Your task to perform on an android device: Search for the new nintendo switch on Walmart. Image 0: 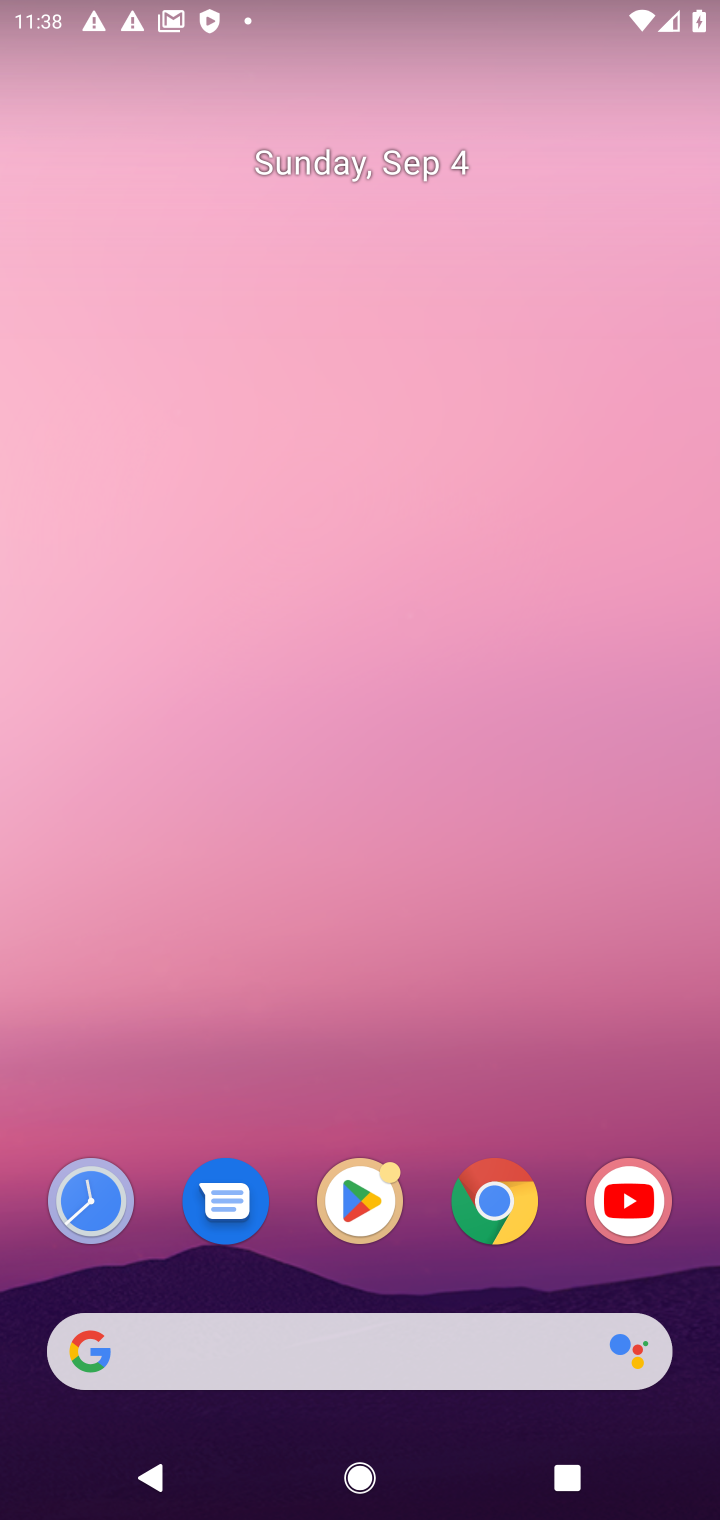
Step 0: click (484, 1224)
Your task to perform on an android device: Search for the new nintendo switch on Walmart. Image 1: 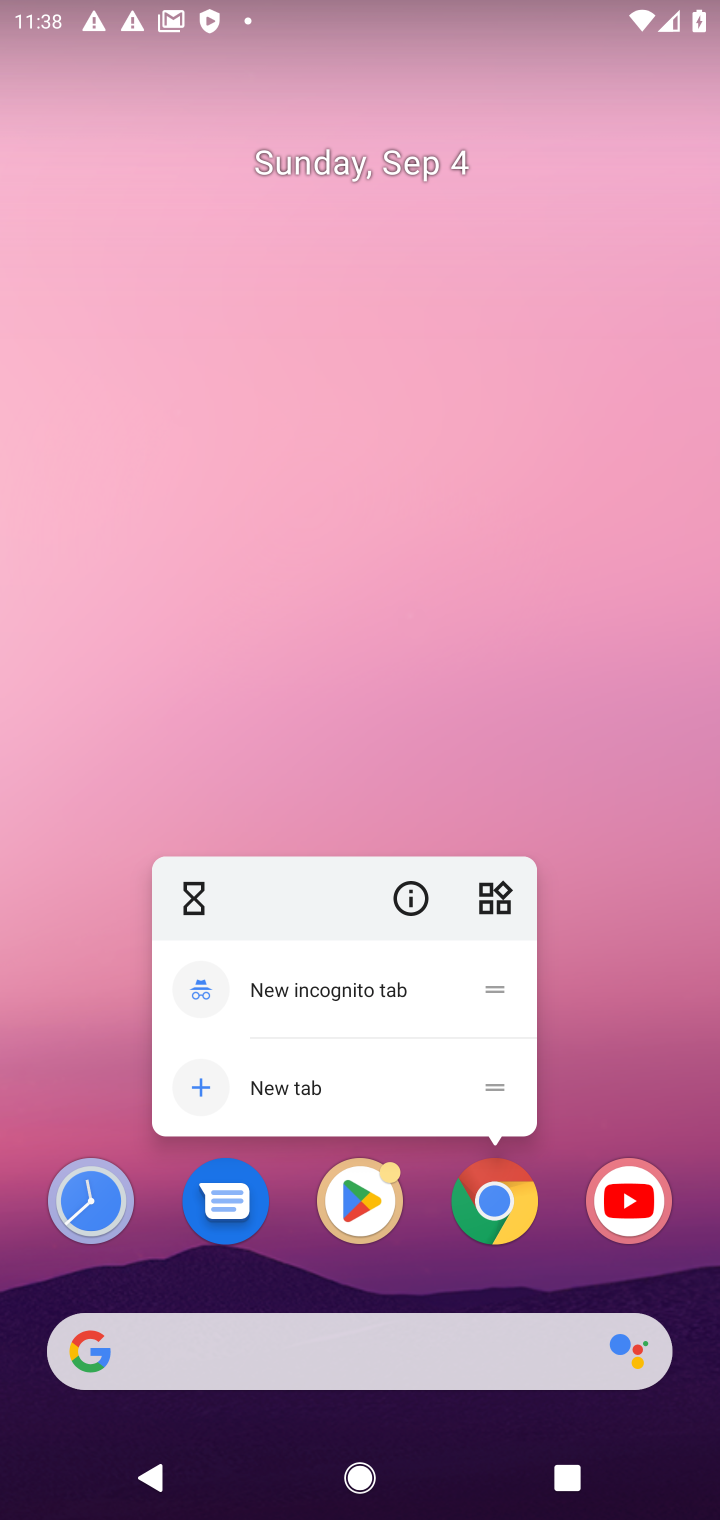
Step 1: click (486, 1216)
Your task to perform on an android device: Search for the new nintendo switch on Walmart. Image 2: 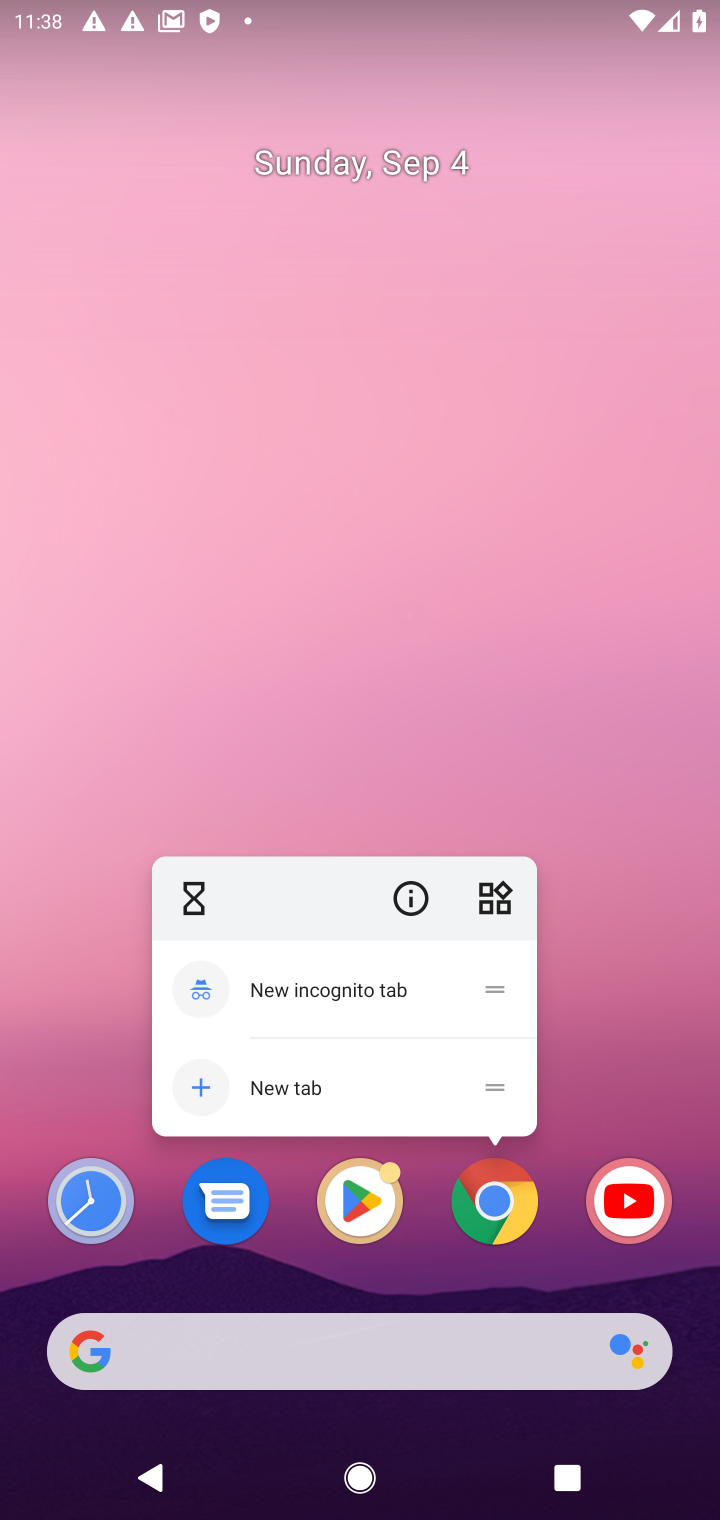
Step 2: click (512, 1214)
Your task to perform on an android device: Search for the new nintendo switch on Walmart. Image 3: 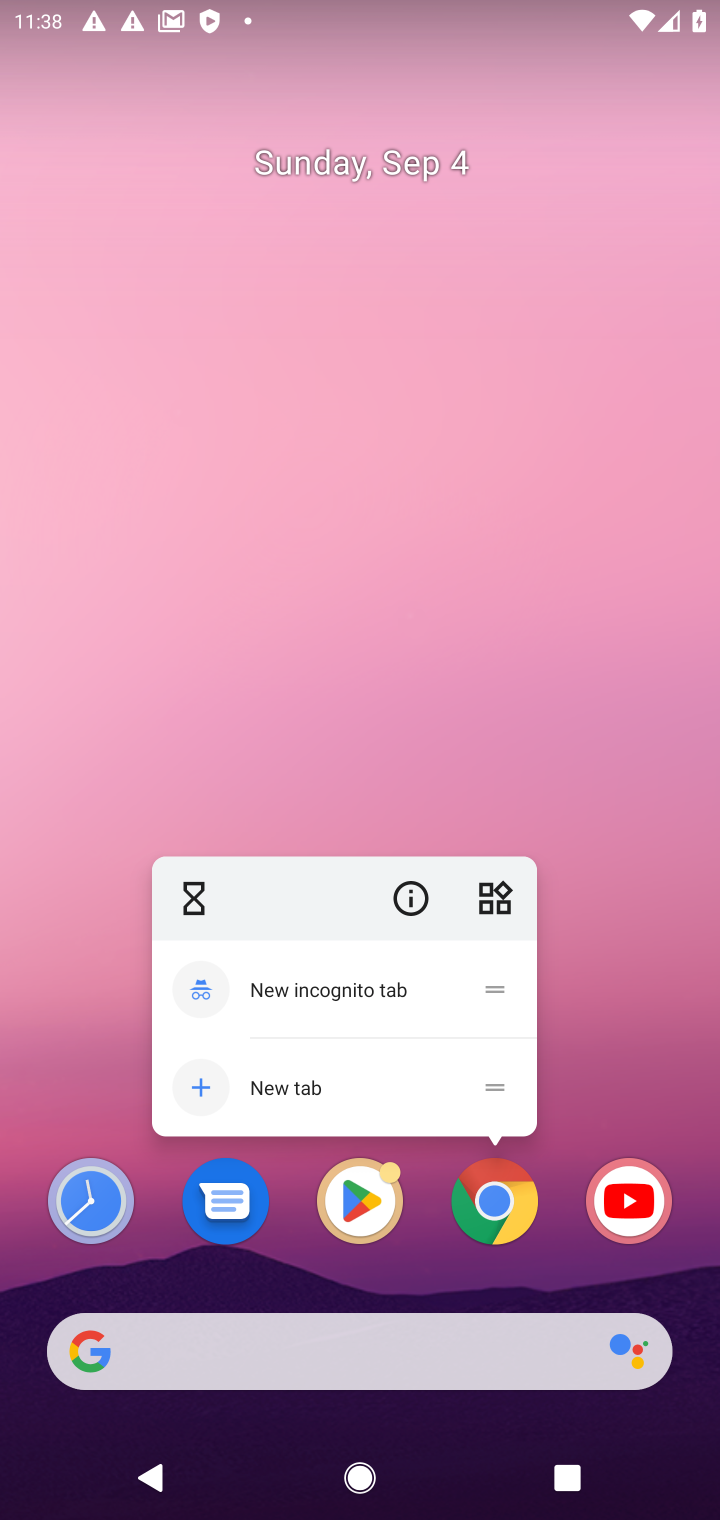
Step 3: click (468, 1192)
Your task to perform on an android device: Search for the new nintendo switch on Walmart. Image 4: 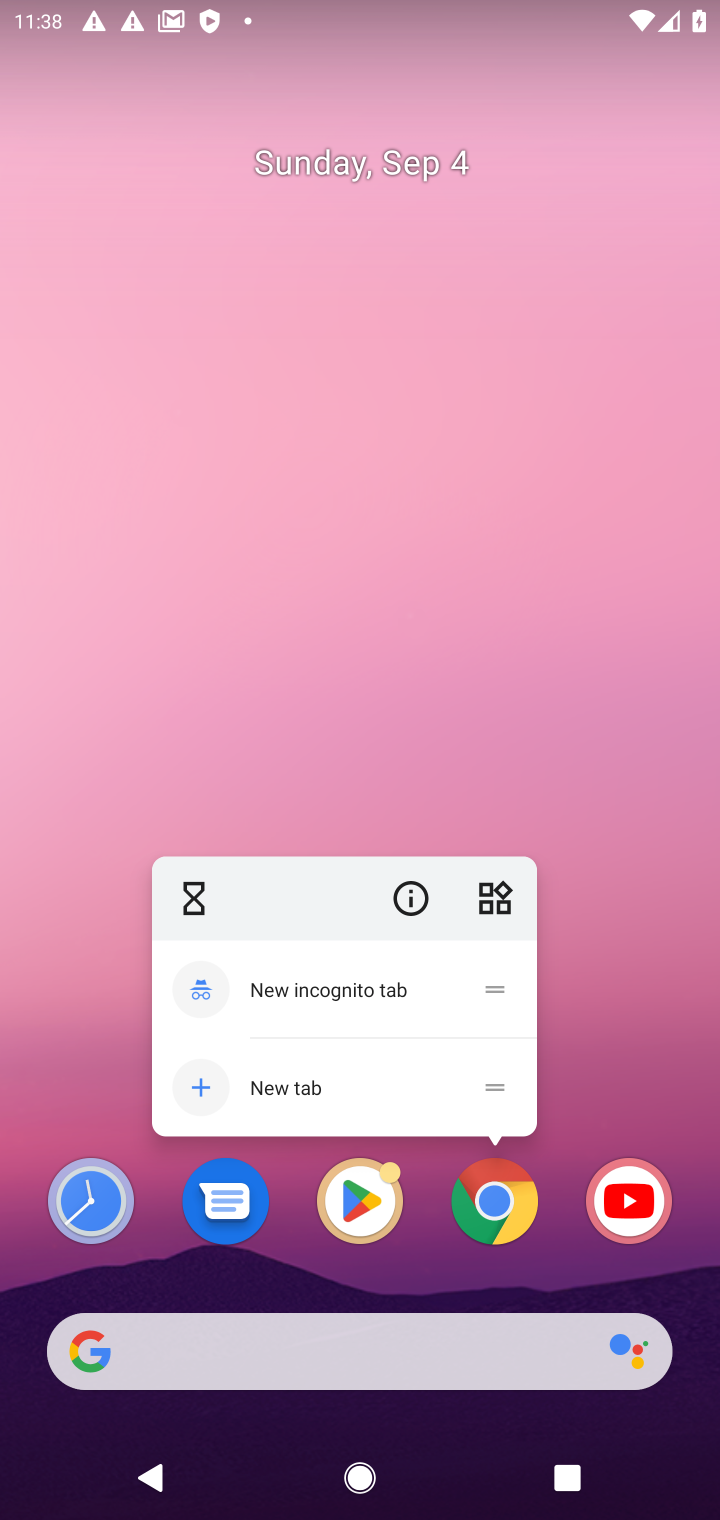
Step 4: click (493, 1197)
Your task to perform on an android device: Search for the new nintendo switch on Walmart. Image 5: 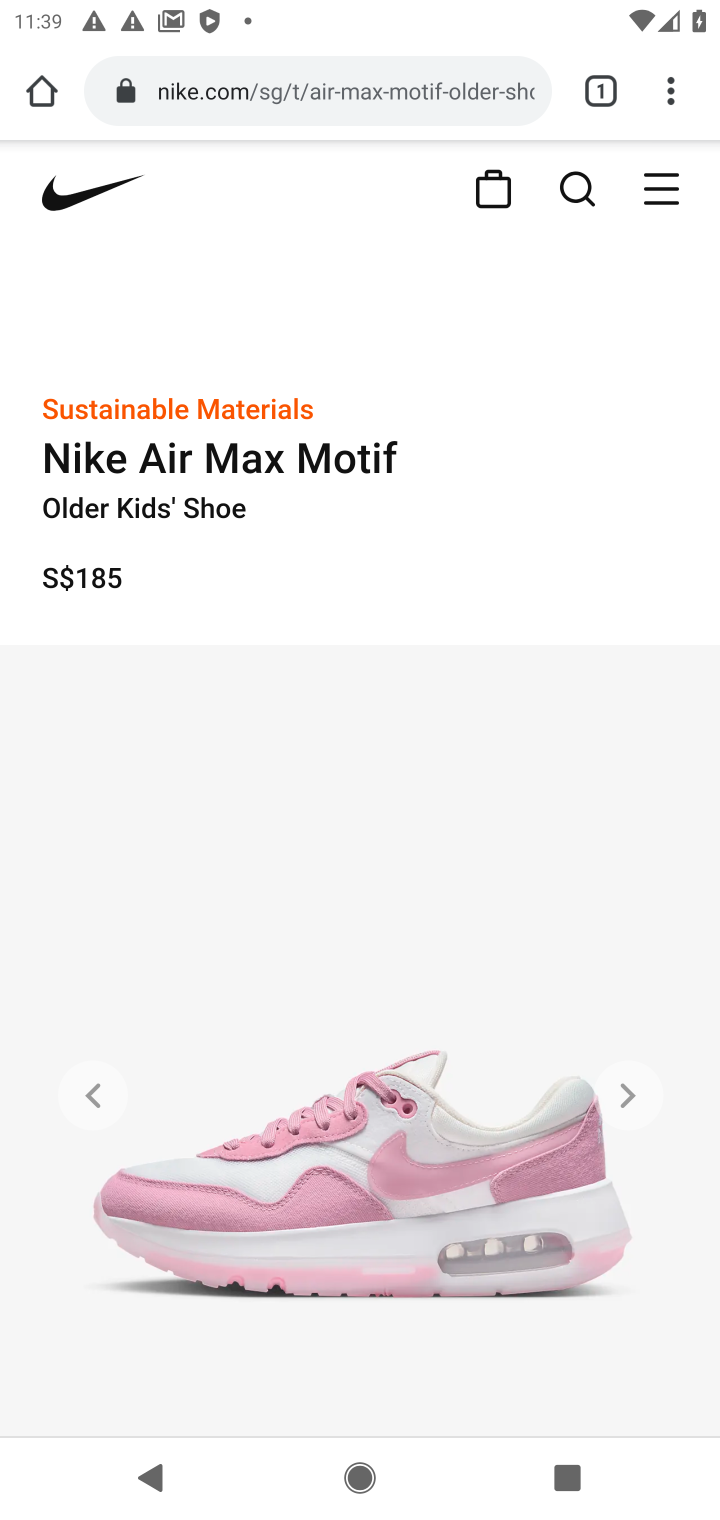
Step 5: click (186, 92)
Your task to perform on an android device: Search for the new nintendo switch on Walmart. Image 6: 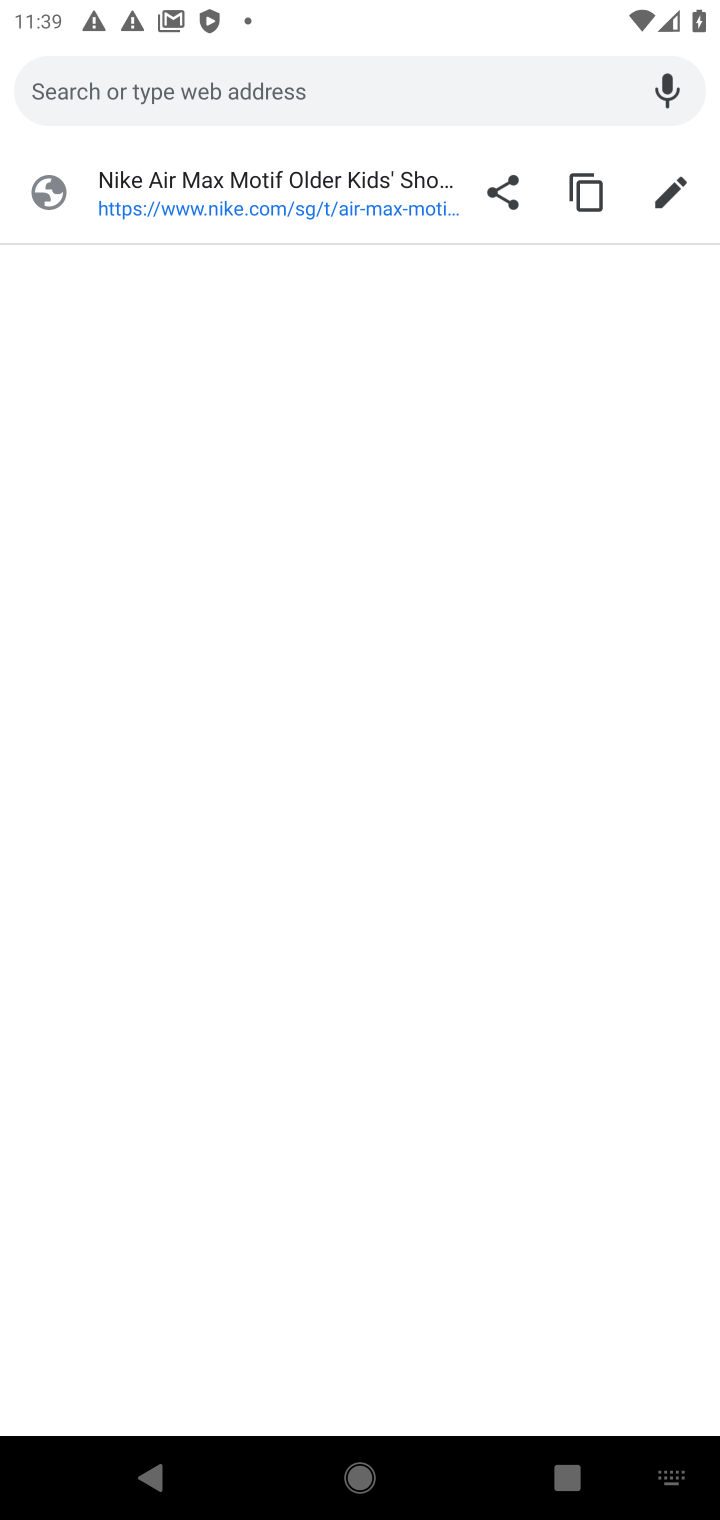
Step 6: type "walmart"
Your task to perform on an android device: Search for the new nintendo switch on Walmart. Image 7: 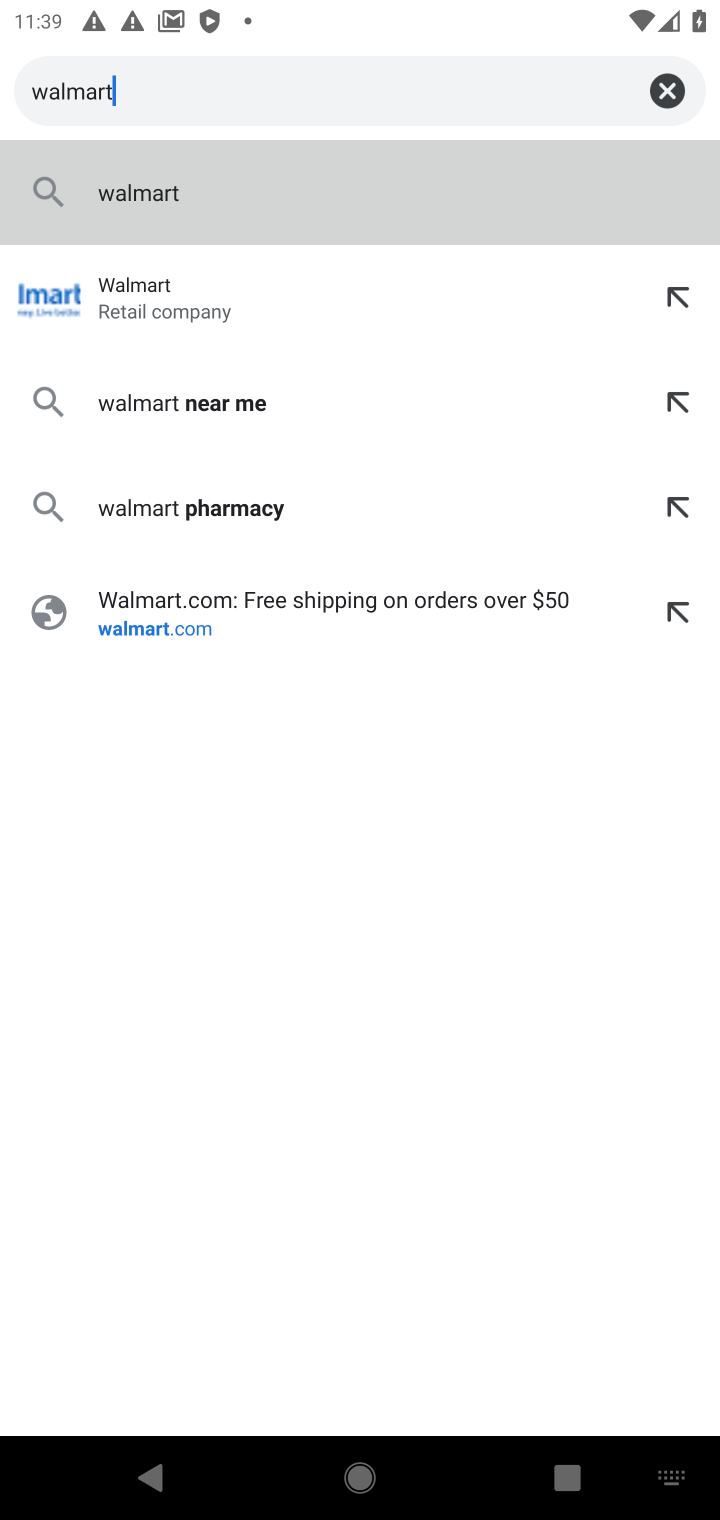
Step 7: click (182, 264)
Your task to perform on an android device: Search for the new nintendo switch on Walmart. Image 8: 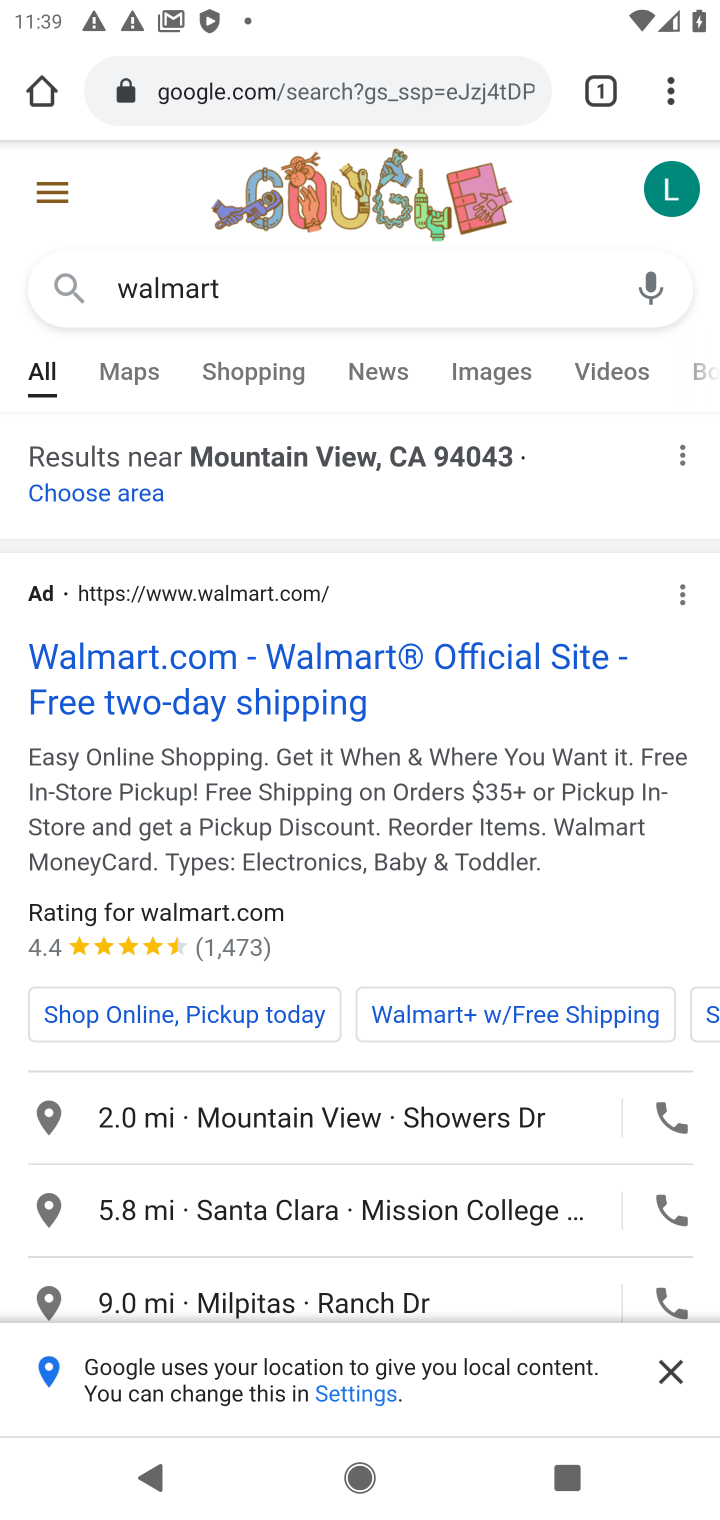
Step 8: click (646, 1027)
Your task to perform on an android device: Search for the new nintendo switch on Walmart. Image 9: 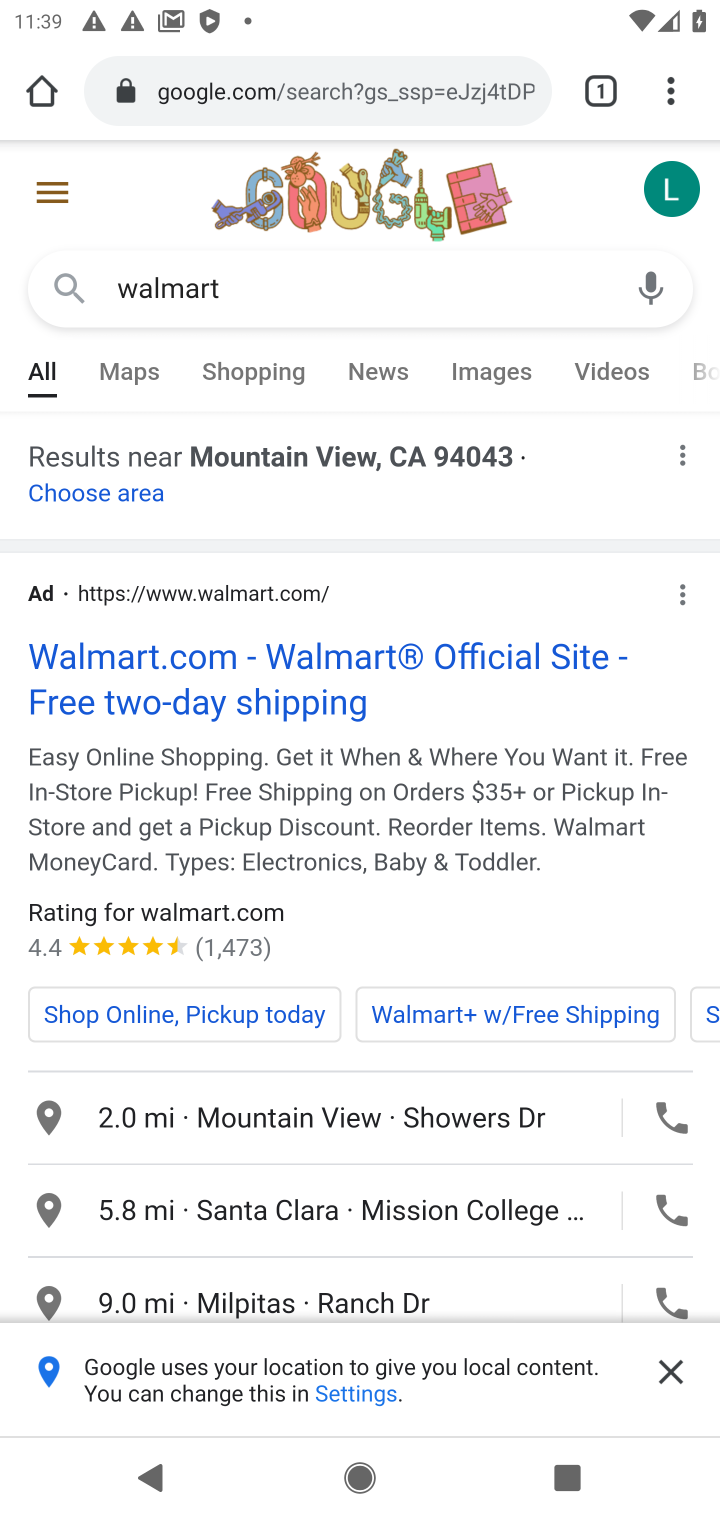
Step 9: drag from (565, 740) to (597, 79)
Your task to perform on an android device: Search for the new nintendo switch on Walmart. Image 10: 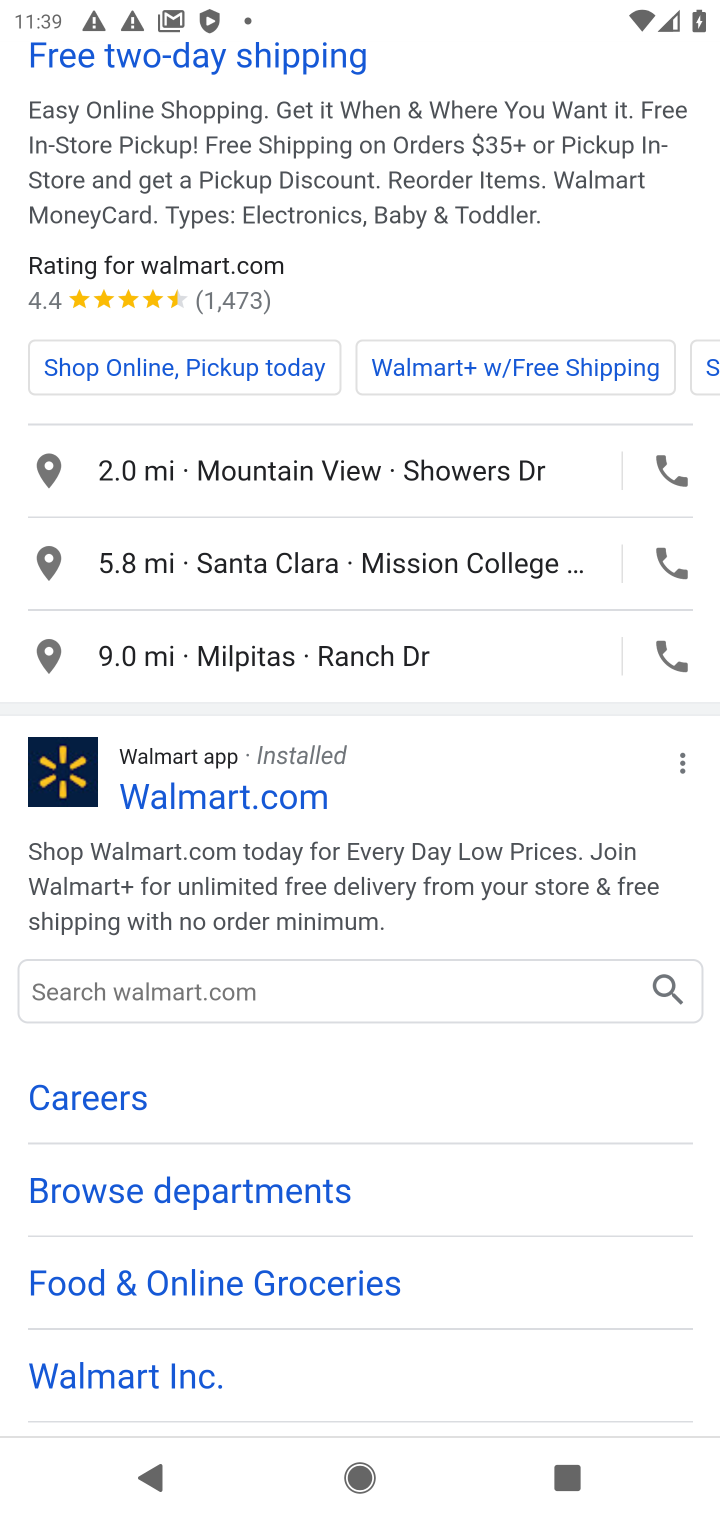
Step 10: click (154, 792)
Your task to perform on an android device: Search for the new nintendo switch on Walmart. Image 11: 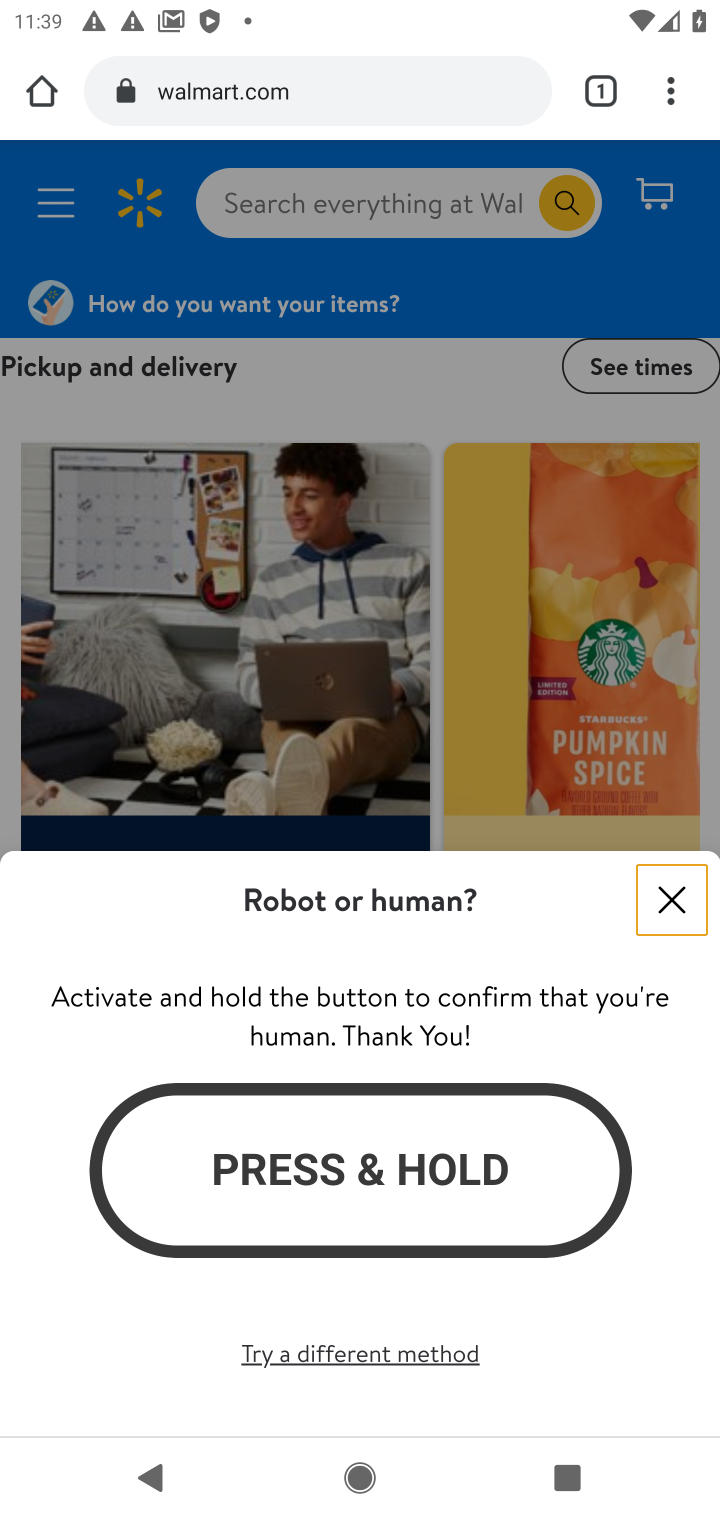
Step 11: click (363, 211)
Your task to perform on an android device: Search for the new nintendo switch on Walmart. Image 12: 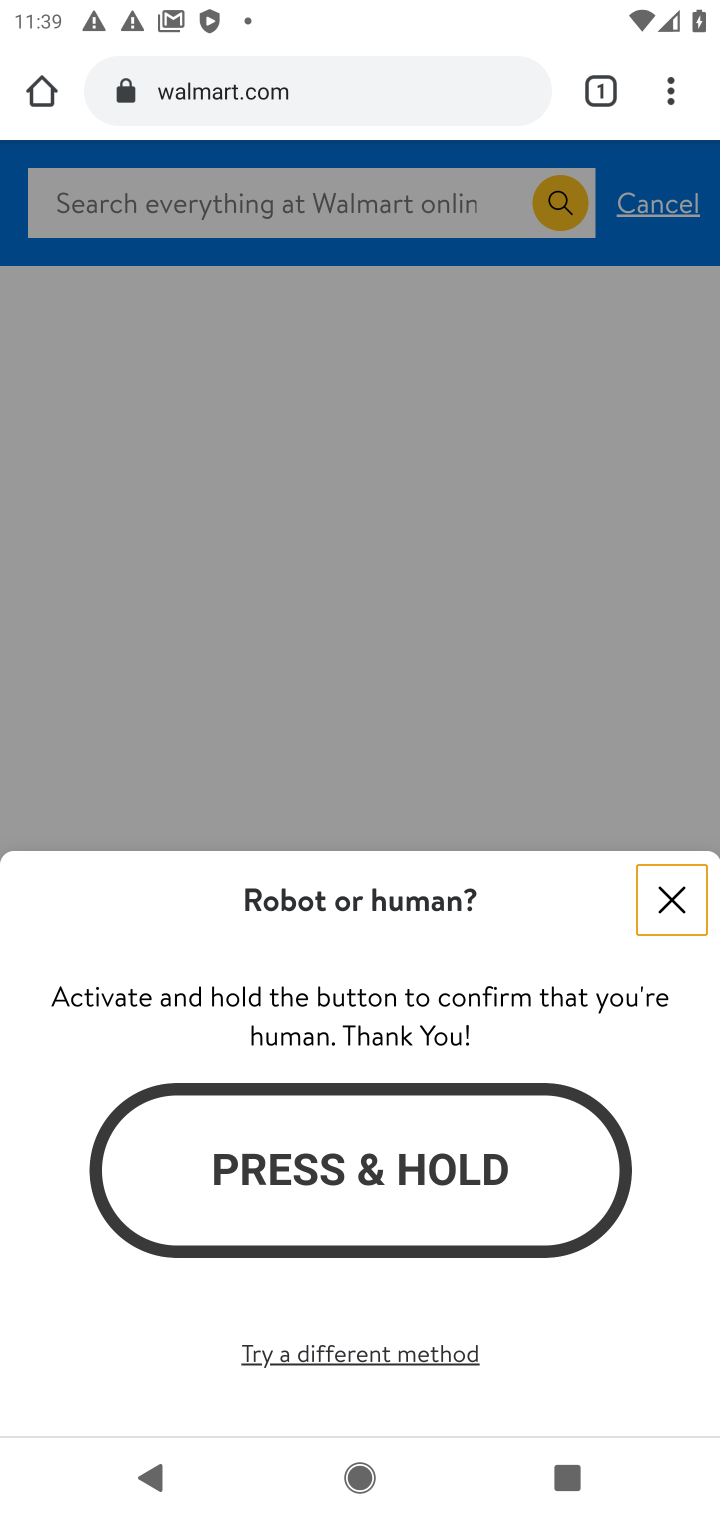
Step 12: type "ninte"
Your task to perform on an android device: Search for the new nintendo switch on Walmart. Image 13: 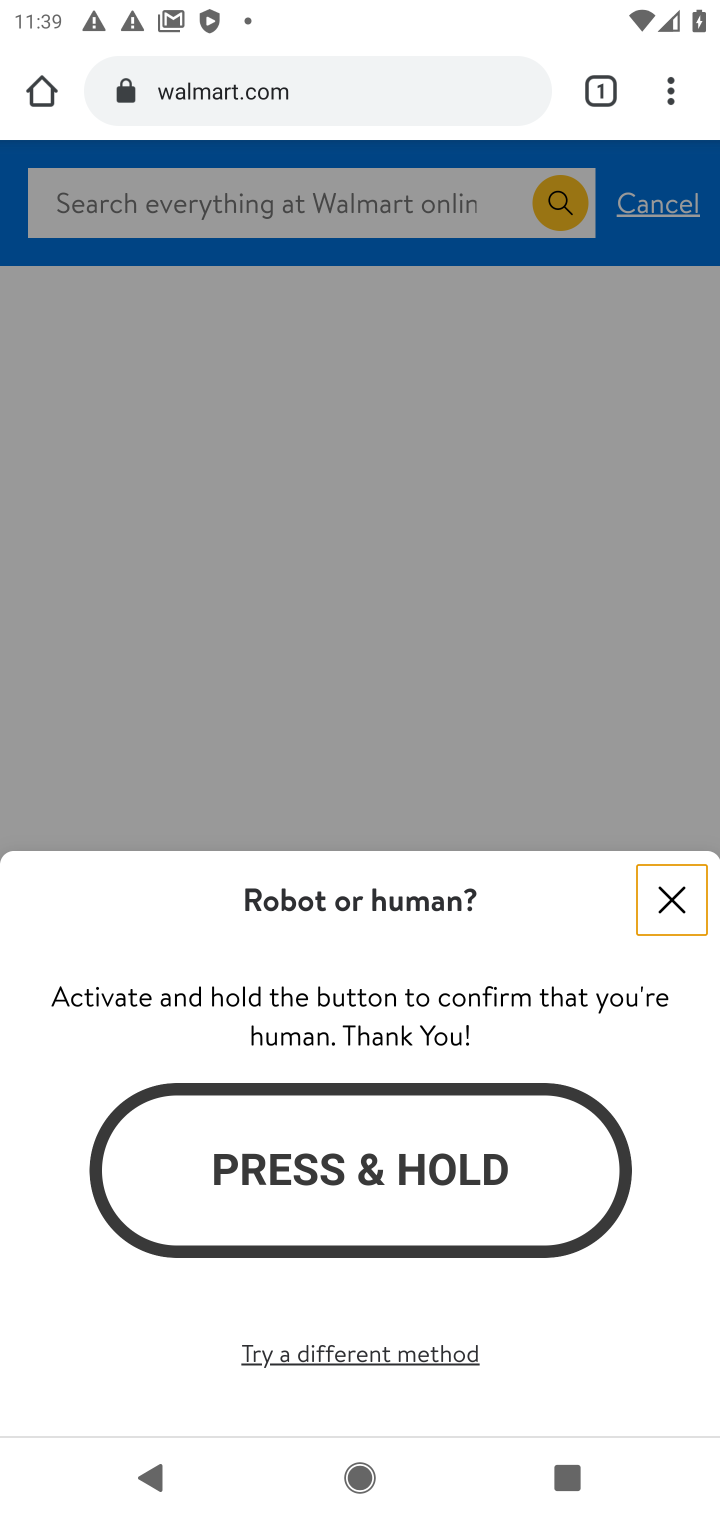
Step 13: click (664, 899)
Your task to perform on an android device: Search for the new nintendo switch on Walmart. Image 14: 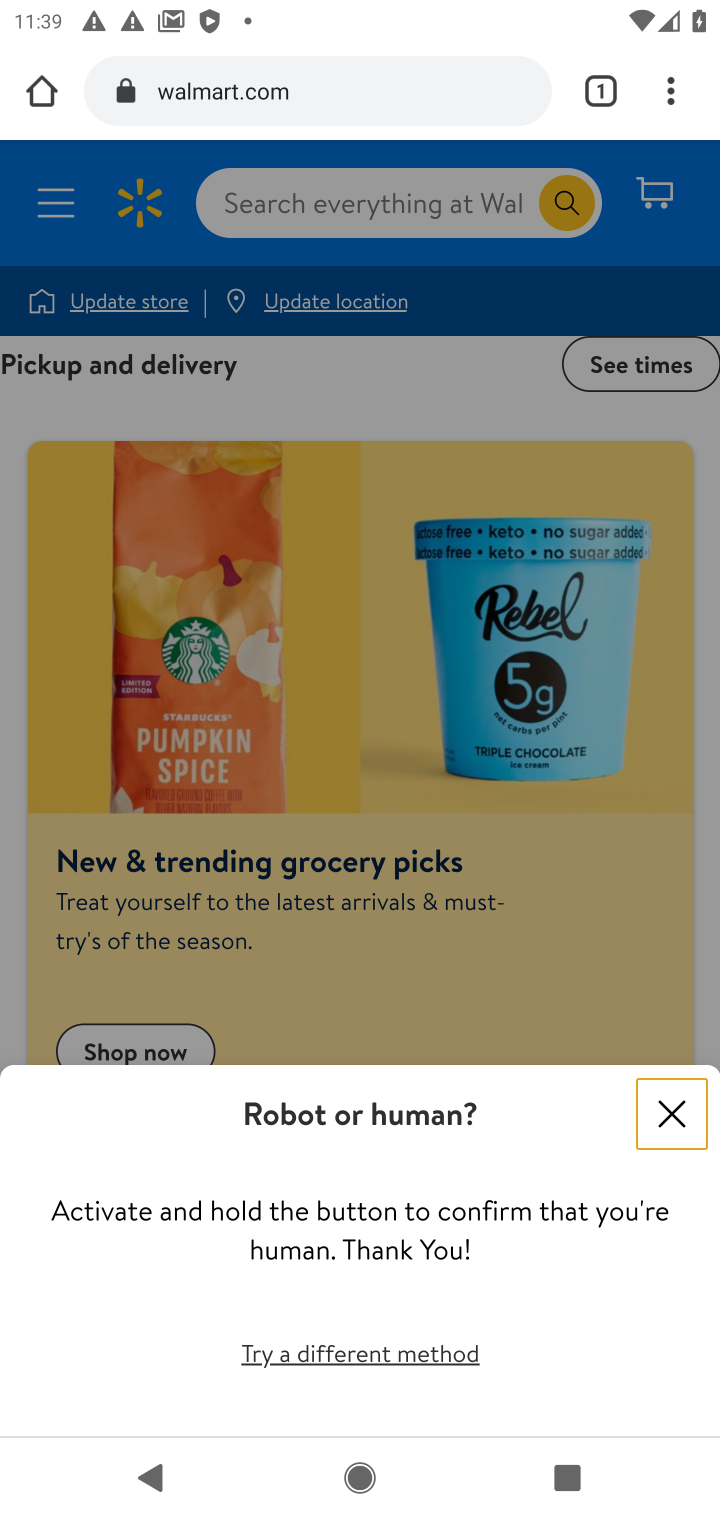
Step 14: click (302, 209)
Your task to perform on an android device: Search for the new nintendo switch on Walmart. Image 15: 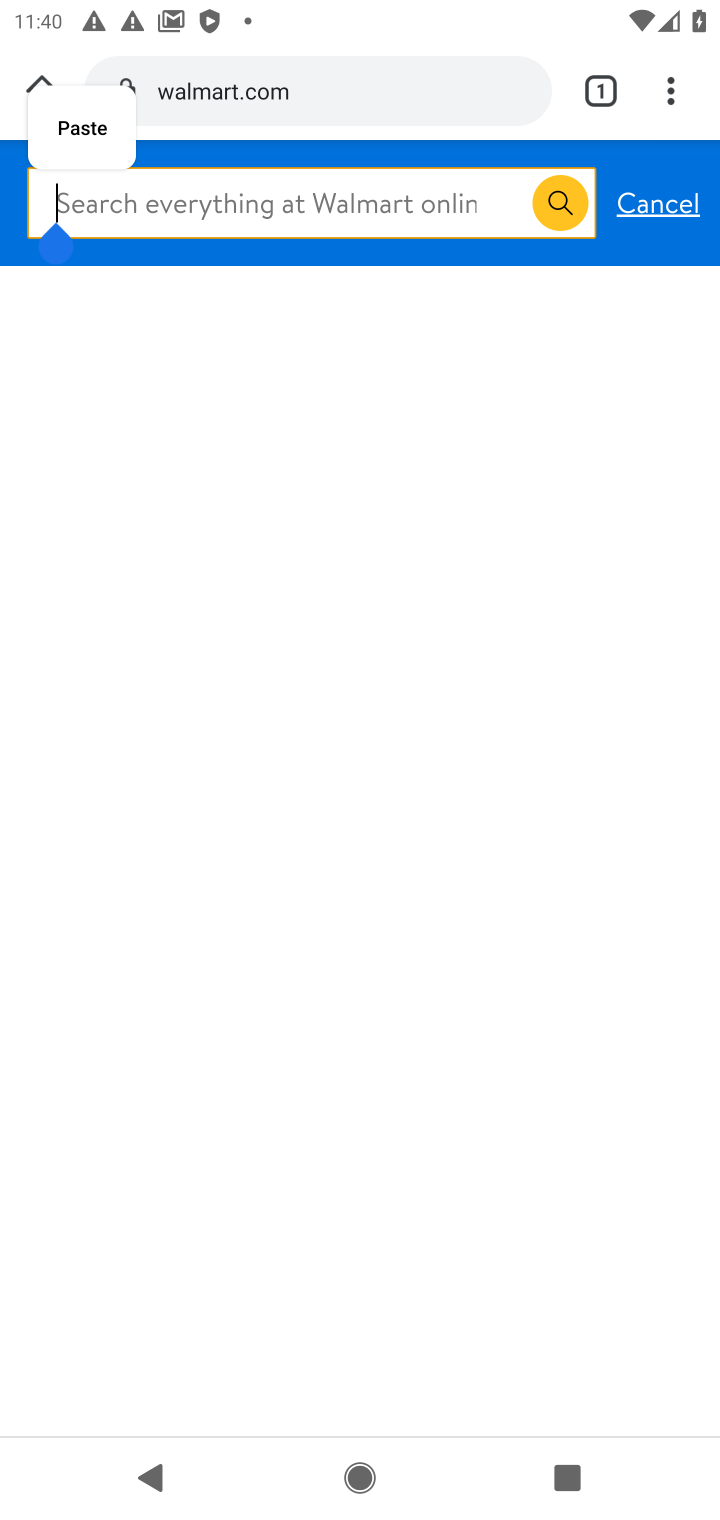
Step 15: type "nintendo switch"
Your task to perform on an android device: Search for the new nintendo switch on Walmart. Image 16: 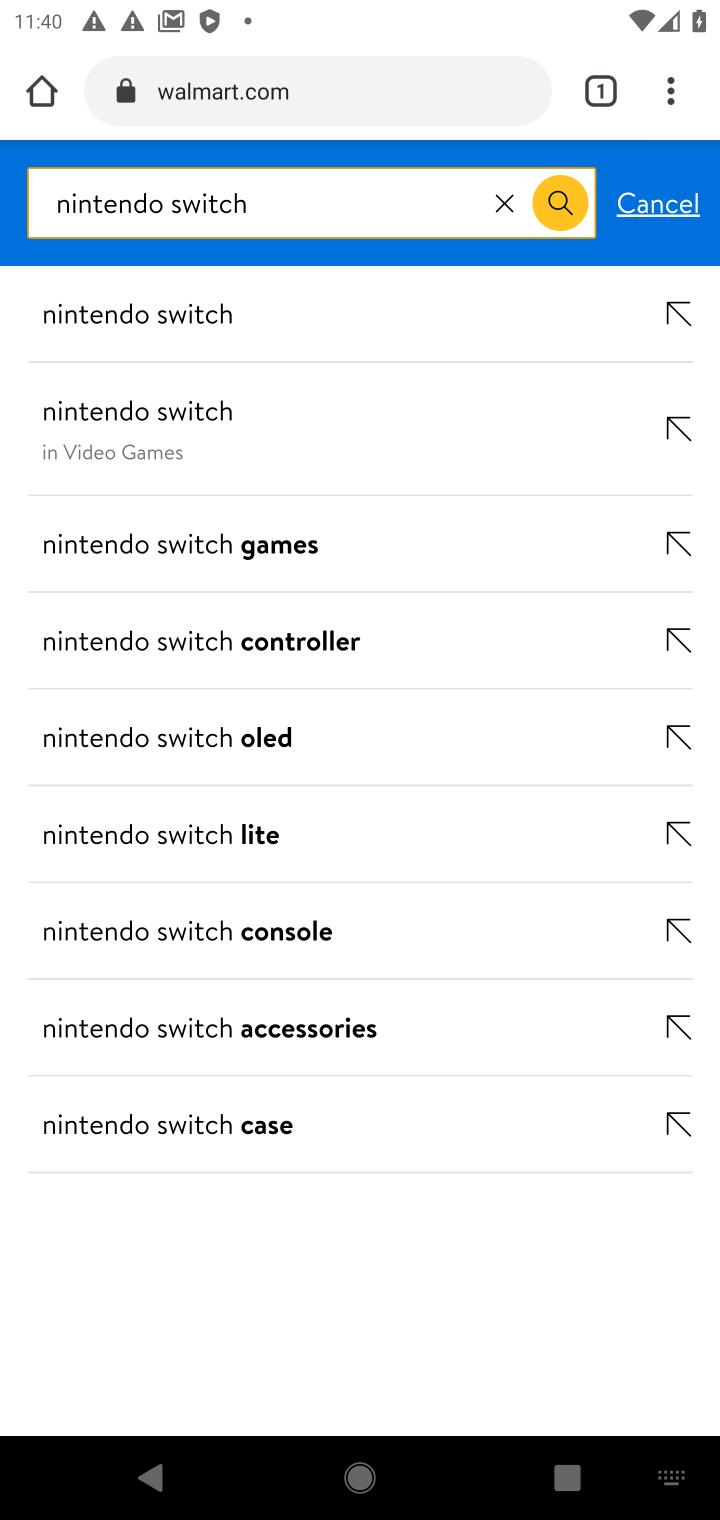
Step 16: click (86, 419)
Your task to perform on an android device: Search for the new nintendo switch on Walmart. Image 17: 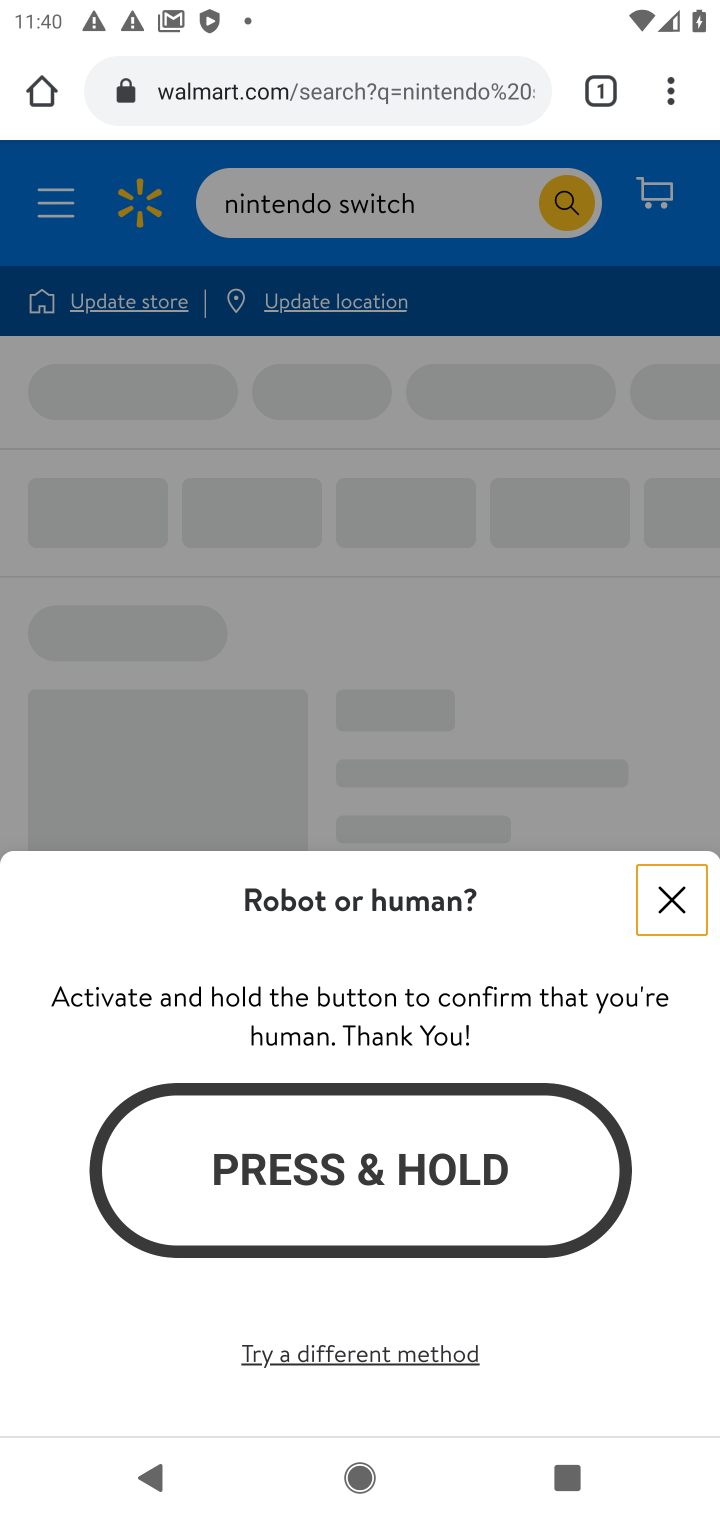
Step 17: click (677, 893)
Your task to perform on an android device: Search for the new nintendo switch on Walmart. Image 18: 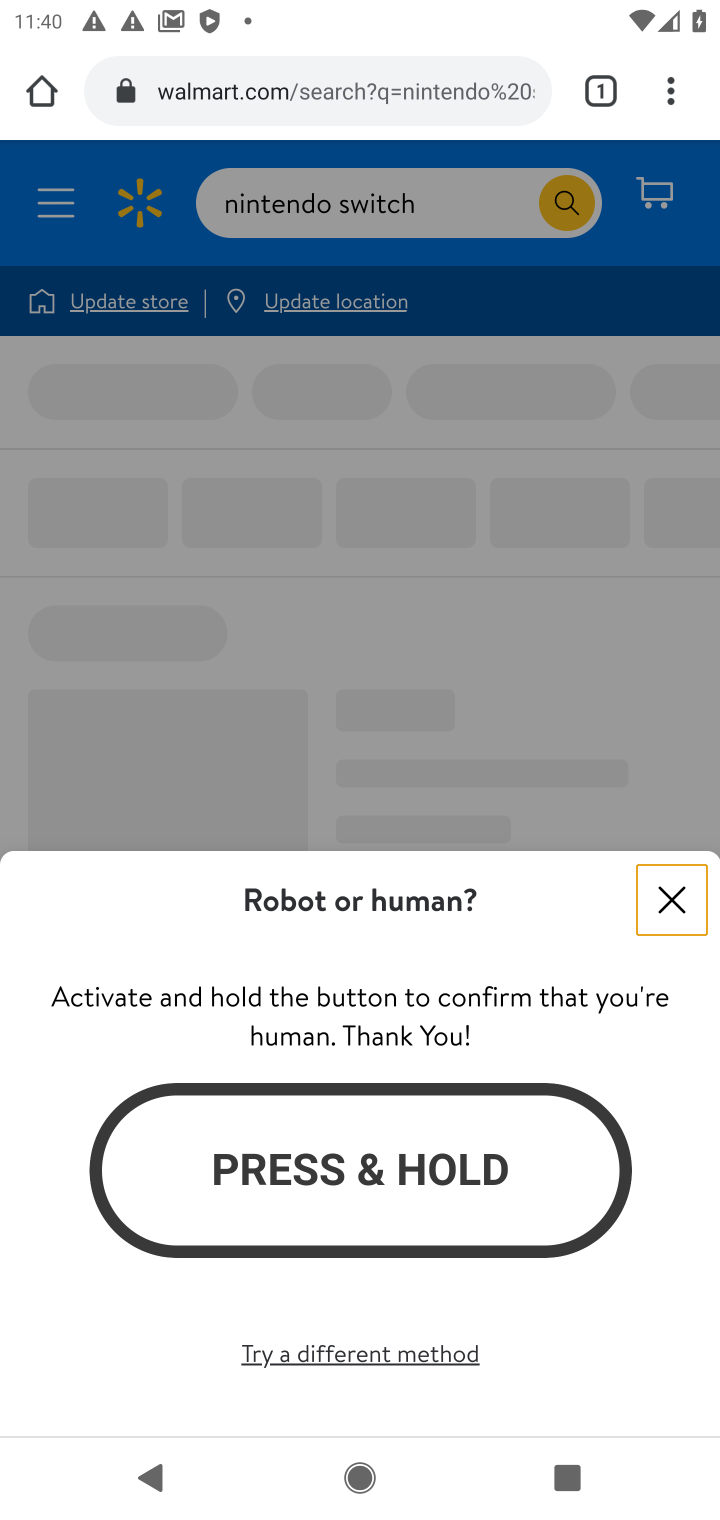
Step 18: click (673, 897)
Your task to perform on an android device: Search for the new nintendo switch on Walmart. Image 19: 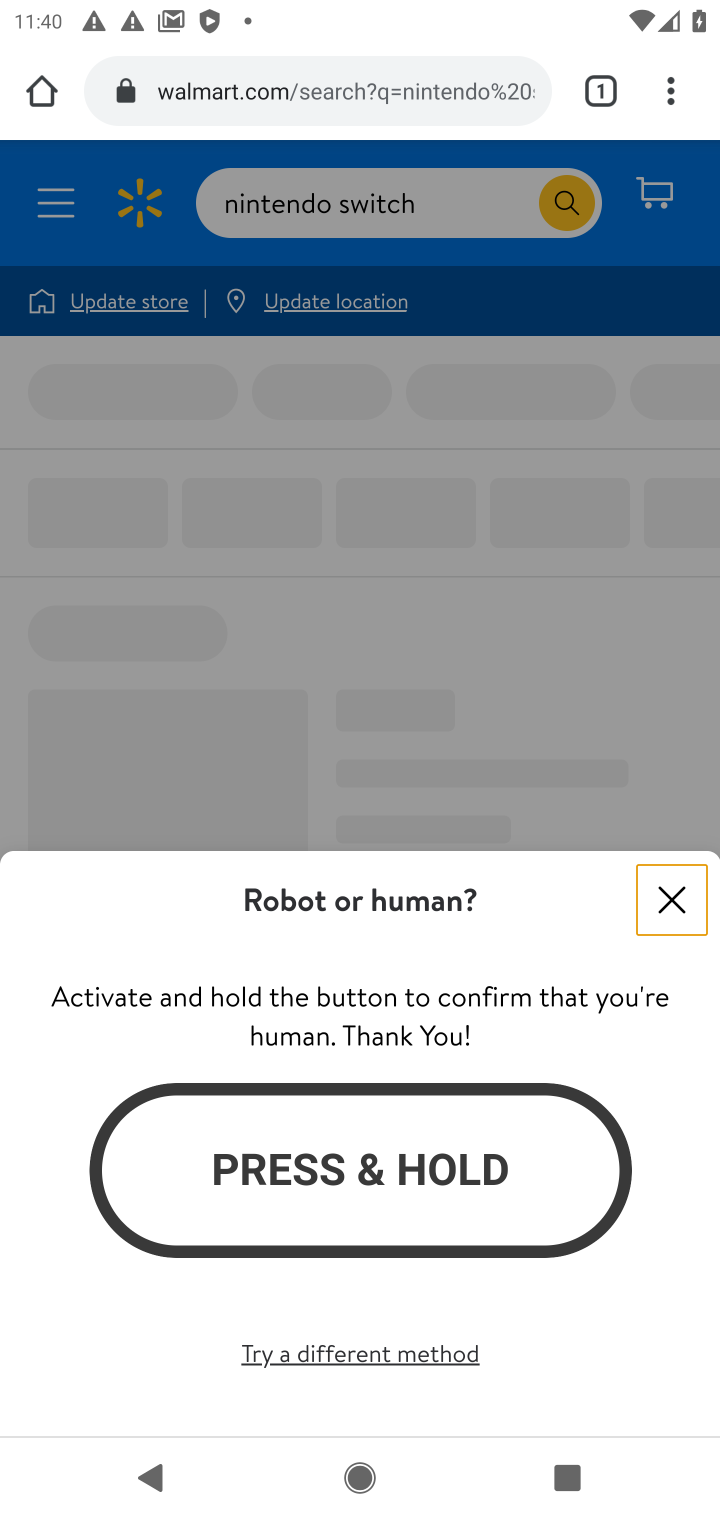
Step 19: click (662, 901)
Your task to perform on an android device: Search for the new nintendo switch on Walmart. Image 20: 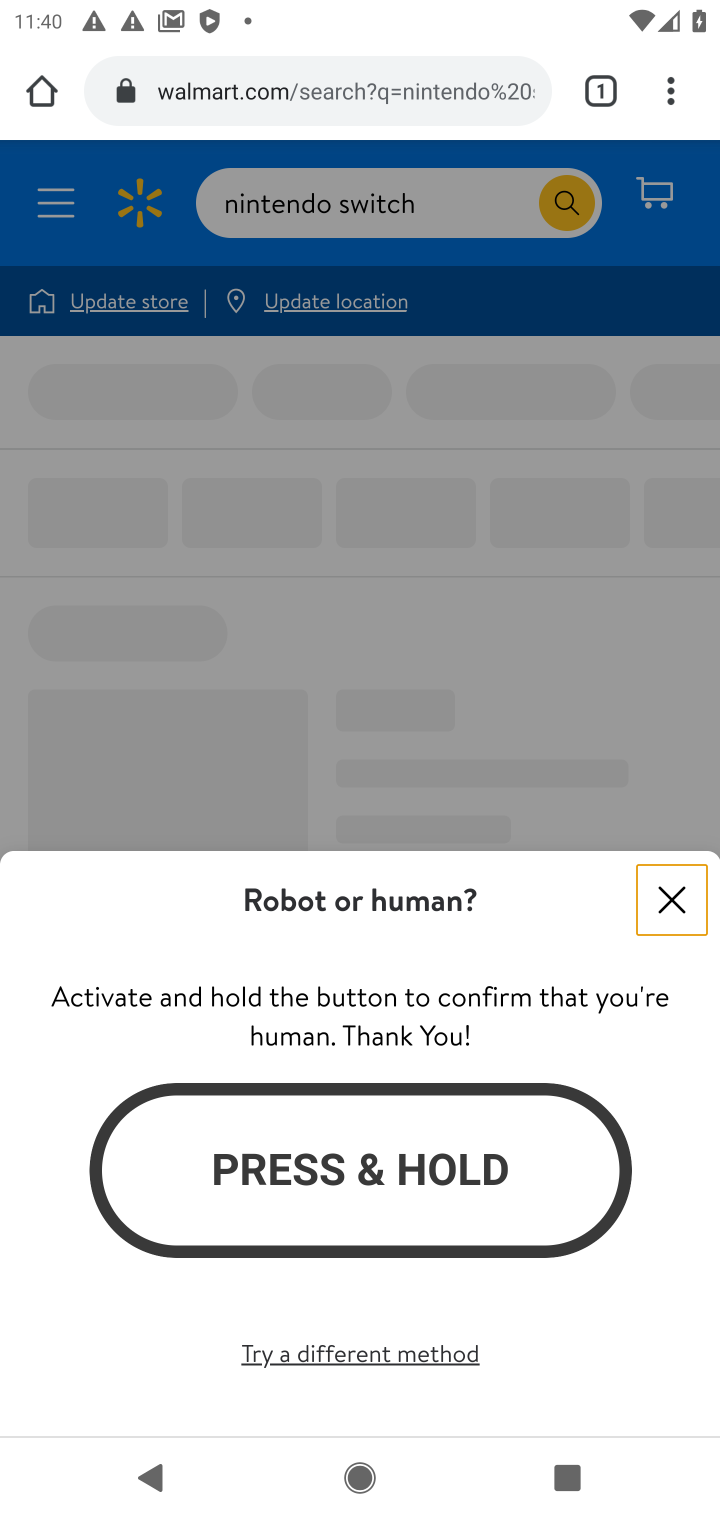
Step 20: click (666, 894)
Your task to perform on an android device: Search for the new nintendo switch on Walmart. Image 21: 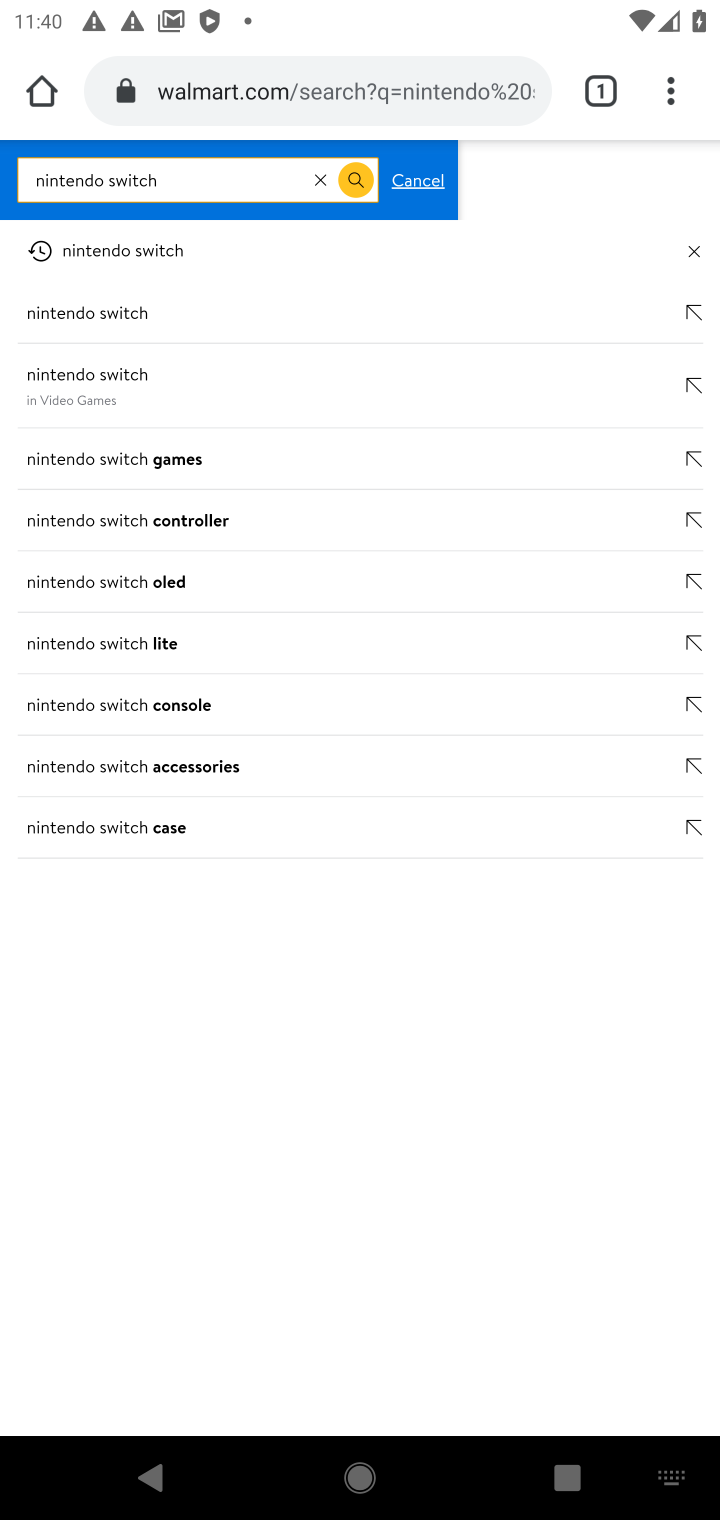
Step 21: click (105, 308)
Your task to perform on an android device: Search for the new nintendo switch on Walmart. Image 22: 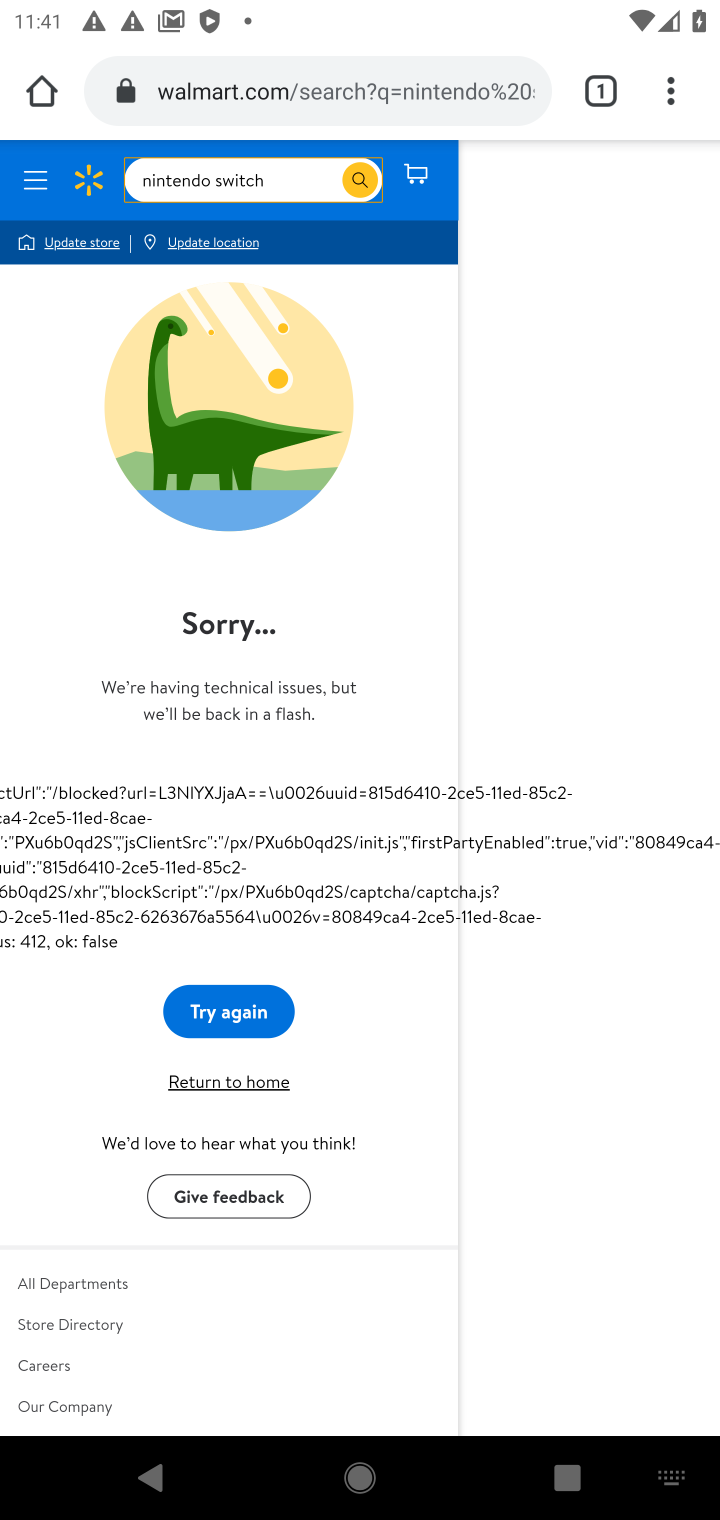
Step 22: task complete